Your task to perform on an android device: open the mobile data screen to see how much data has been used Image 0: 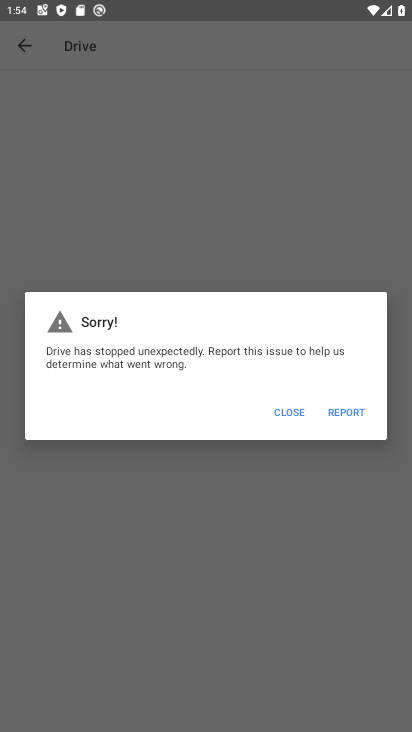
Step 0: press home button
Your task to perform on an android device: open the mobile data screen to see how much data has been used Image 1: 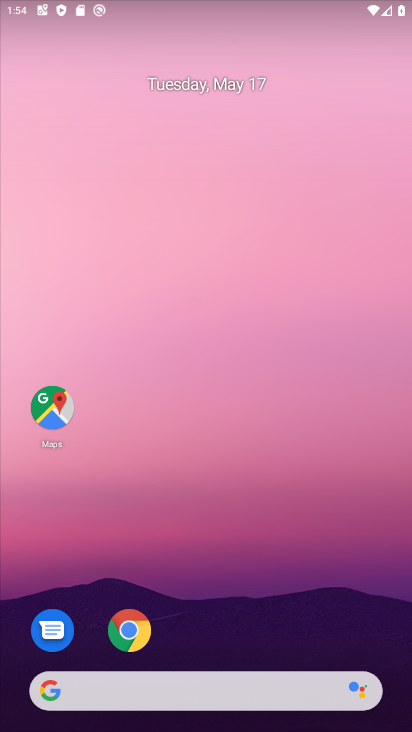
Step 1: drag from (366, 602) to (336, 146)
Your task to perform on an android device: open the mobile data screen to see how much data has been used Image 2: 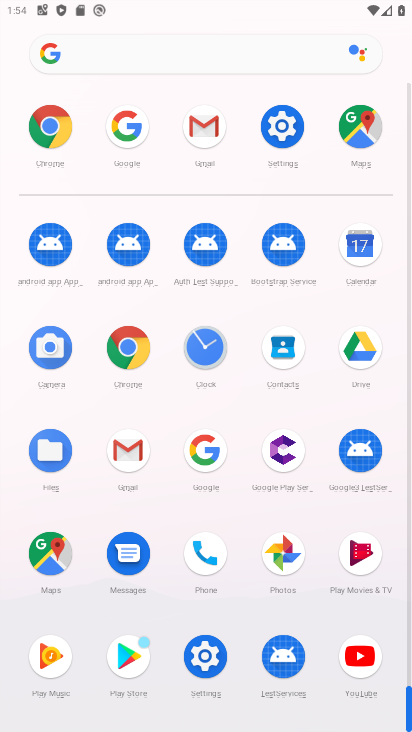
Step 2: click (283, 118)
Your task to perform on an android device: open the mobile data screen to see how much data has been used Image 3: 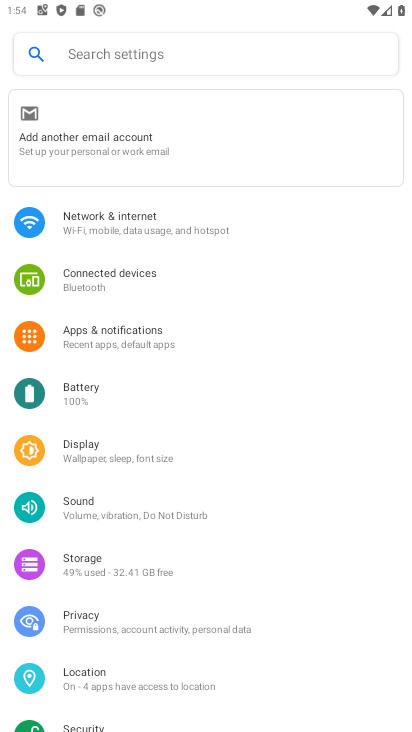
Step 3: click (113, 219)
Your task to perform on an android device: open the mobile data screen to see how much data has been used Image 4: 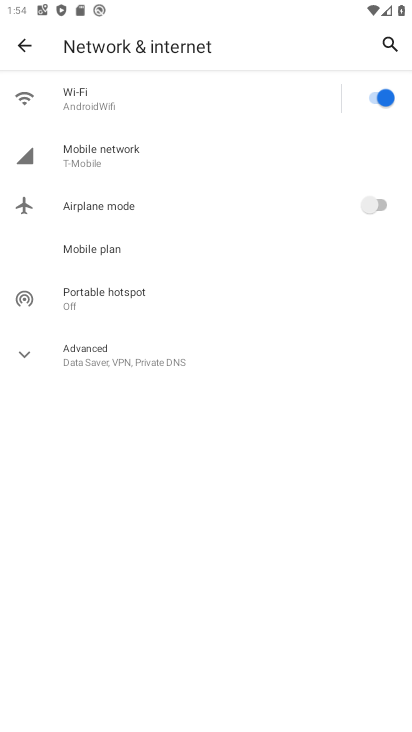
Step 4: click (138, 150)
Your task to perform on an android device: open the mobile data screen to see how much data has been used Image 5: 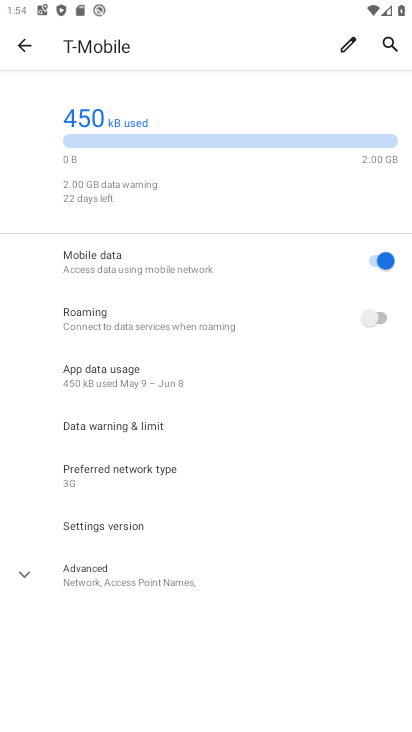
Step 5: task complete